Your task to perform on an android device: check battery use Image 0: 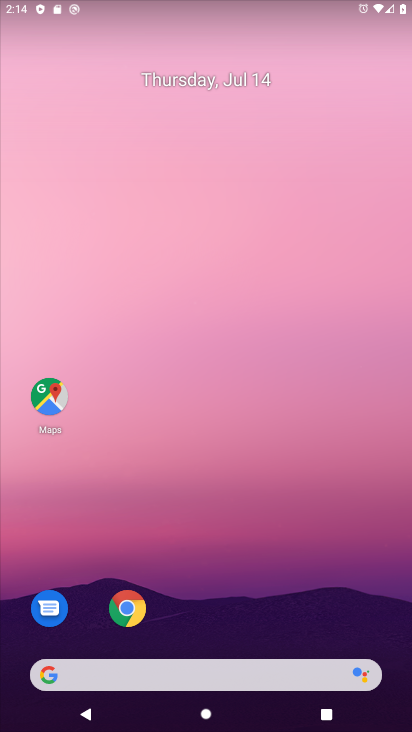
Step 0: drag from (241, 720) to (234, 163)
Your task to perform on an android device: check battery use Image 1: 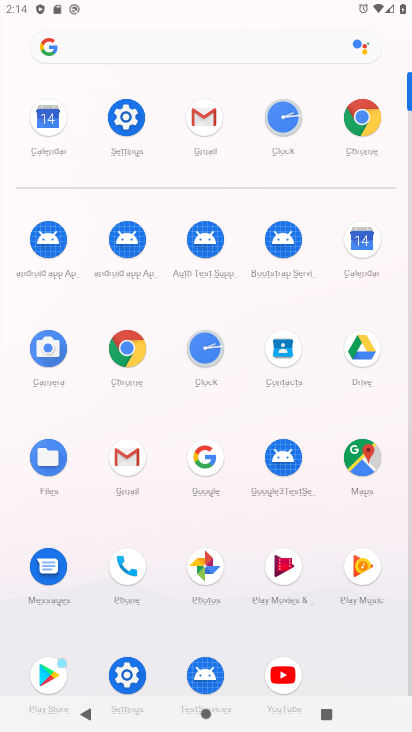
Step 1: click (126, 120)
Your task to perform on an android device: check battery use Image 2: 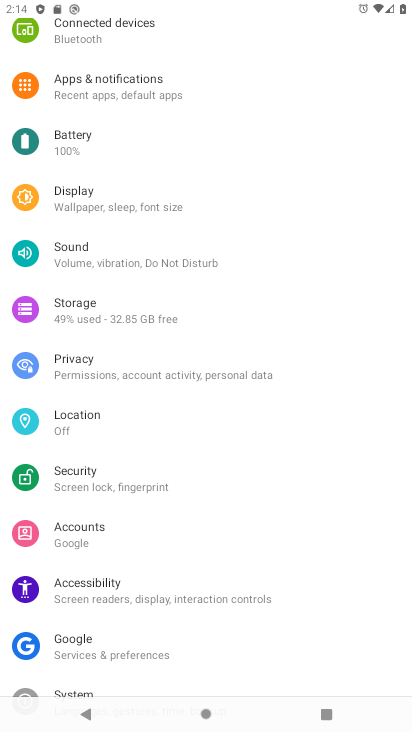
Step 2: click (58, 138)
Your task to perform on an android device: check battery use Image 3: 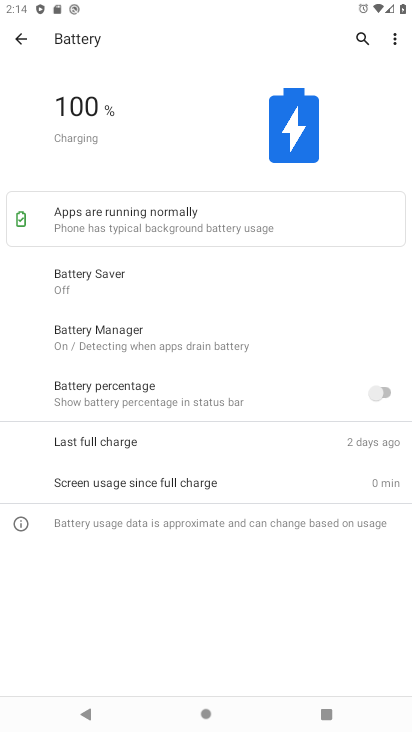
Step 3: click (396, 42)
Your task to perform on an android device: check battery use Image 4: 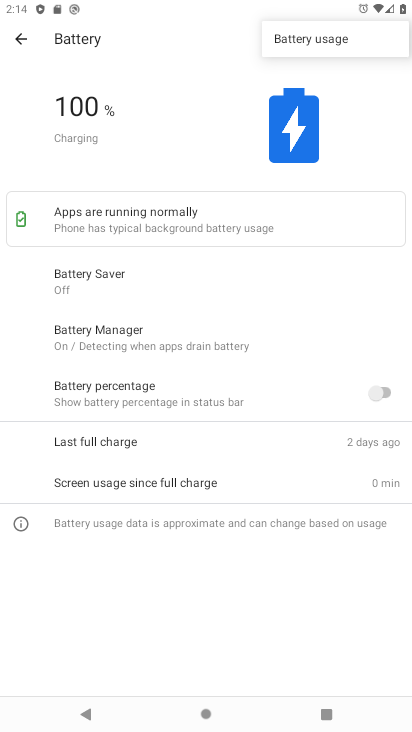
Step 4: click (315, 34)
Your task to perform on an android device: check battery use Image 5: 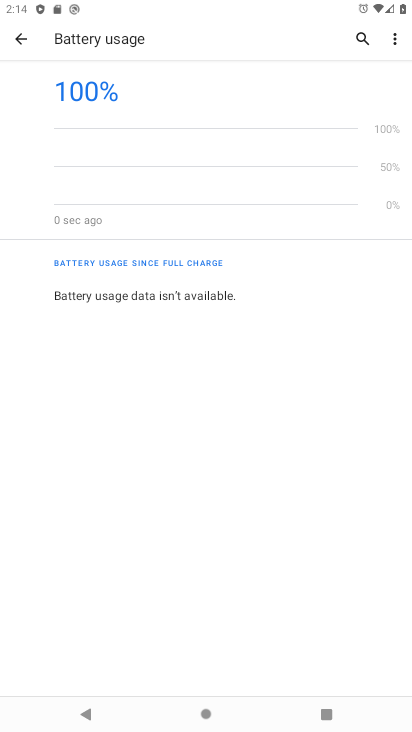
Step 5: task complete